Your task to perform on an android device: Search for Mexican restaurants on Maps Image 0: 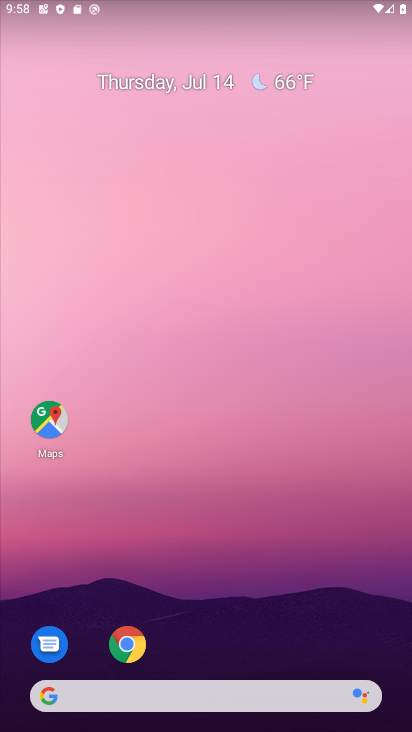
Step 0: drag from (310, 639) to (262, 296)
Your task to perform on an android device: Search for Mexican restaurants on Maps Image 1: 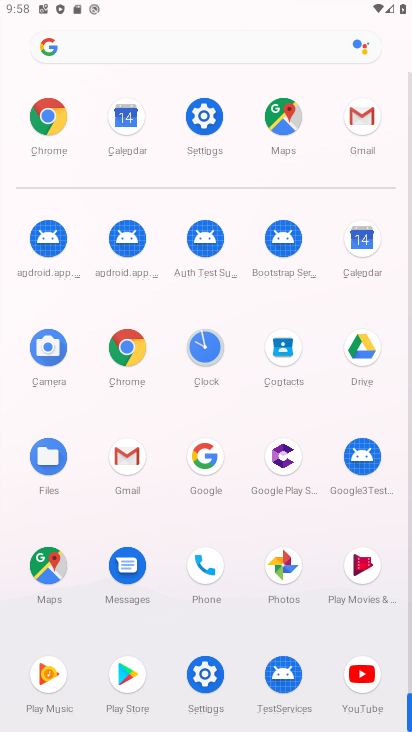
Step 1: click (42, 568)
Your task to perform on an android device: Search for Mexican restaurants on Maps Image 2: 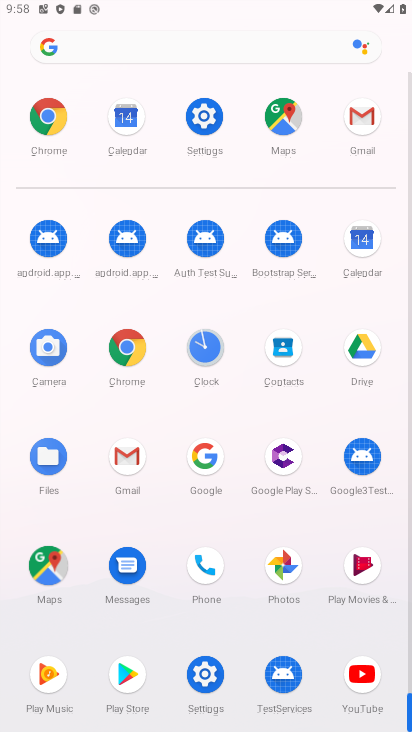
Step 2: click (44, 565)
Your task to perform on an android device: Search for Mexican restaurants on Maps Image 3: 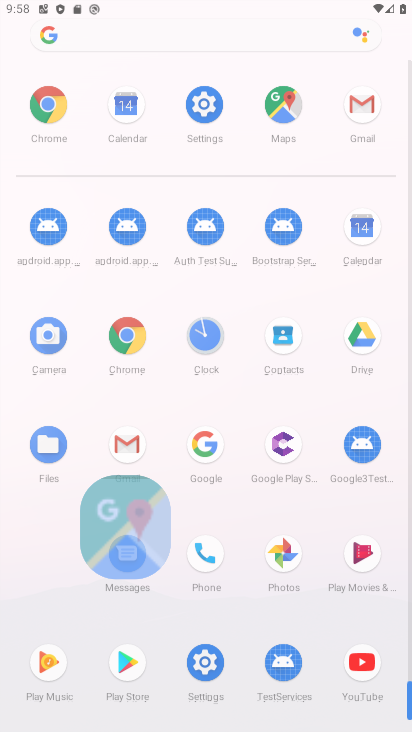
Step 3: click (46, 561)
Your task to perform on an android device: Search for Mexican restaurants on Maps Image 4: 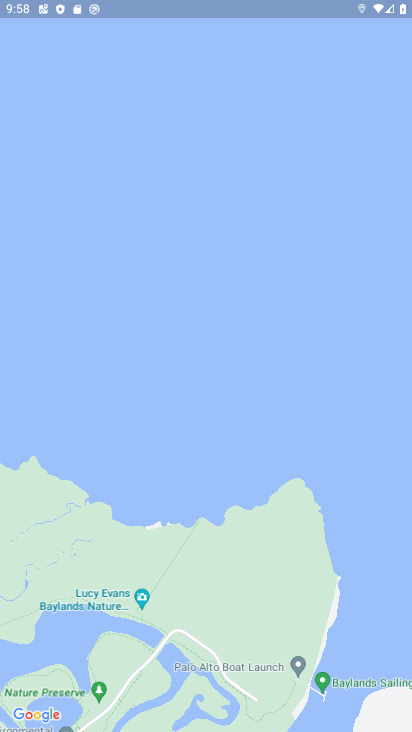
Step 4: click (89, 94)
Your task to perform on an android device: Search for Mexican restaurants on Maps Image 5: 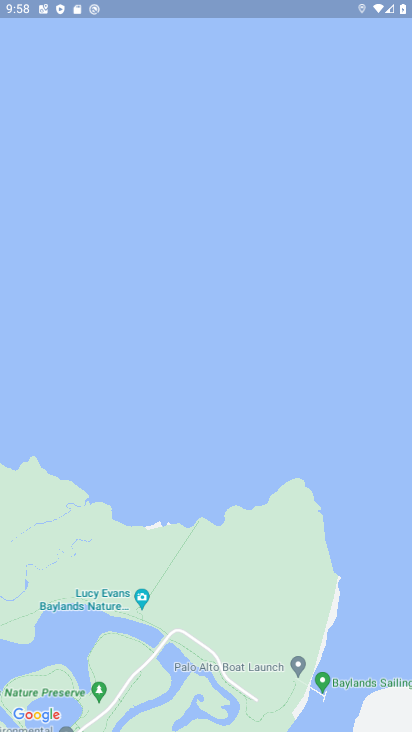
Step 5: click (130, 102)
Your task to perform on an android device: Search for Mexican restaurants on Maps Image 6: 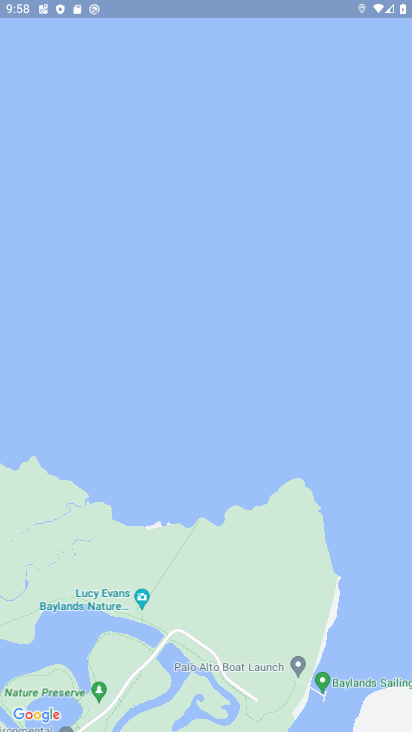
Step 6: click (130, 102)
Your task to perform on an android device: Search for Mexican restaurants on Maps Image 7: 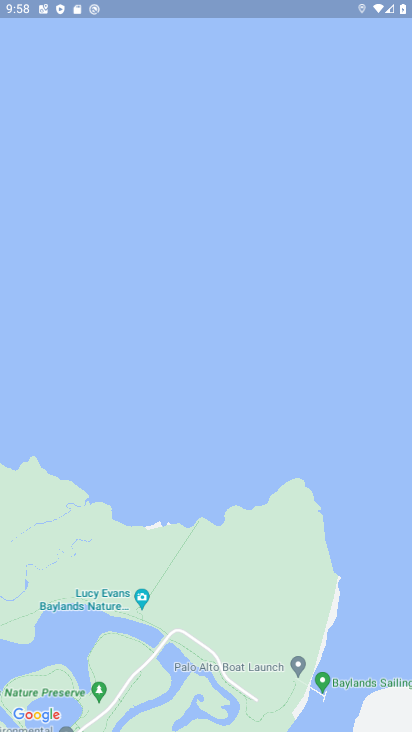
Step 7: click (131, 102)
Your task to perform on an android device: Search for Mexican restaurants on Maps Image 8: 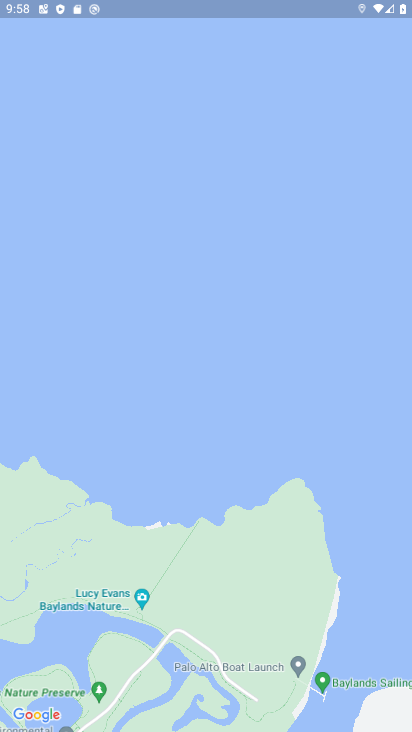
Step 8: click (139, 116)
Your task to perform on an android device: Search for Mexican restaurants on Maps Image 9: 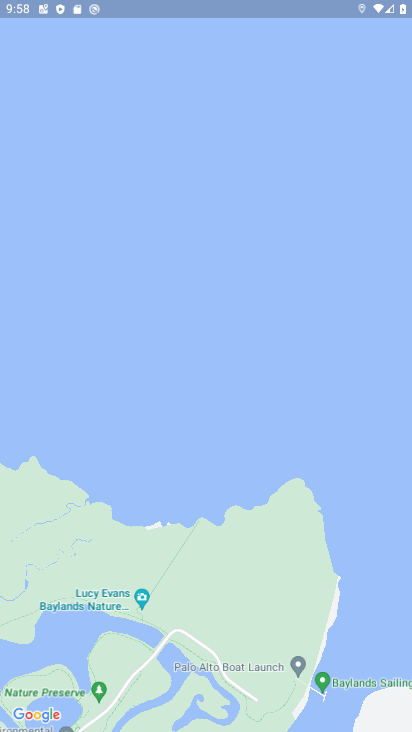
Step 9: click (134, 118)
Your task to perform on an android device: Search for Mexican restaurants on Maps Image 10: 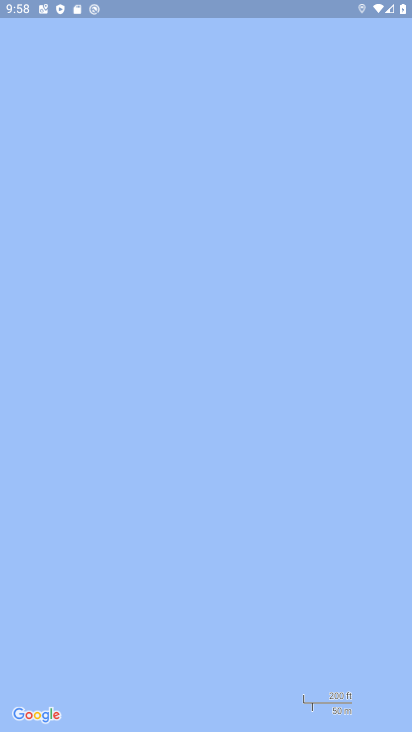
Step 10: click (114, 143)
Your task to perform on an android device: Search for Mexican restaurants on Maps Image 11: 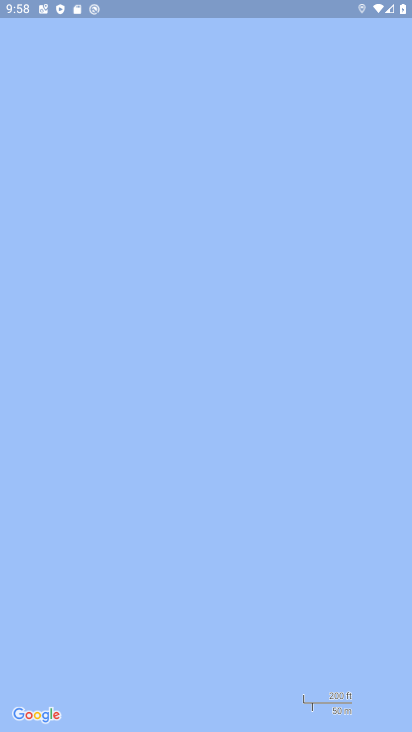
Step 11: click (114, 143)
Your task to perform on an android device: Search for Mexican restaurants on Maps Image 12: 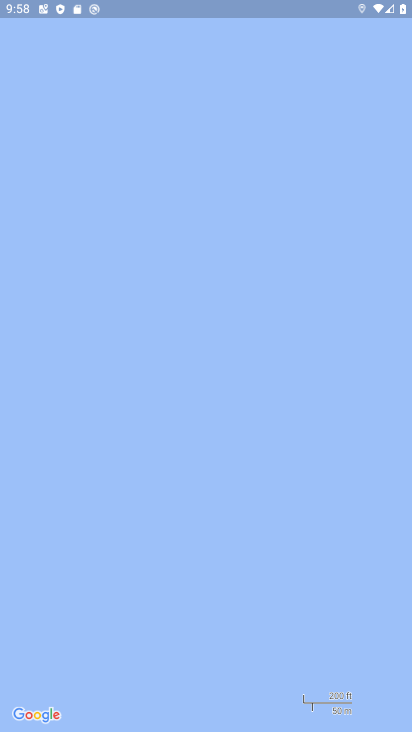
Step 12: click (114, 143)
Your task to perform on an android device: Search for Mexican restaurants on Maps Image 13: 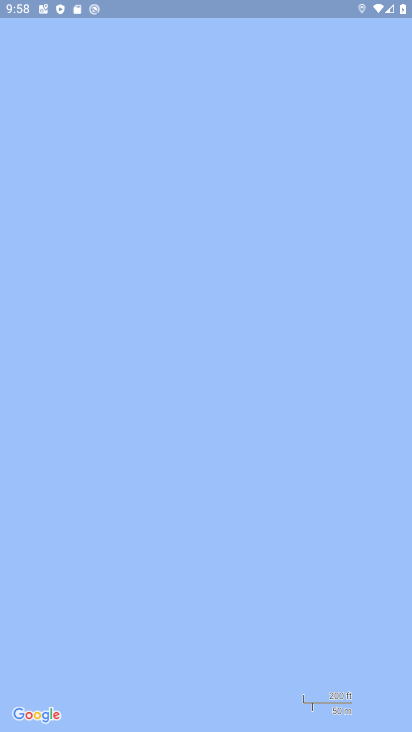
Step 13: click (114, 143)
Your task to perform on an android device: Search for Mexican restaurants on Maps Image 14: 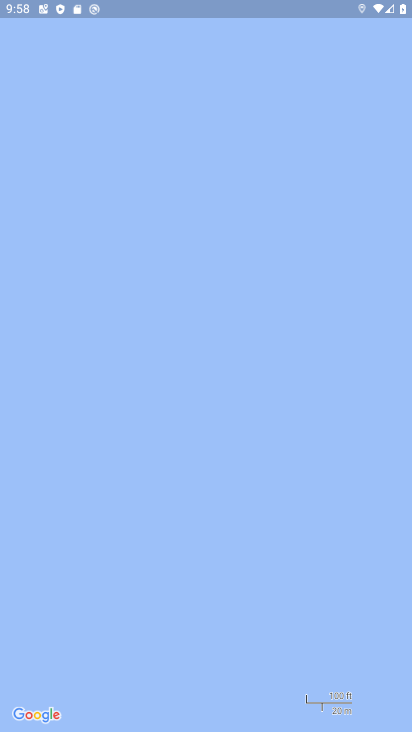
Step 14: click (121, 137)
Your task to perform on an android device: Search for Mexican restaurants on Maps Image 15: 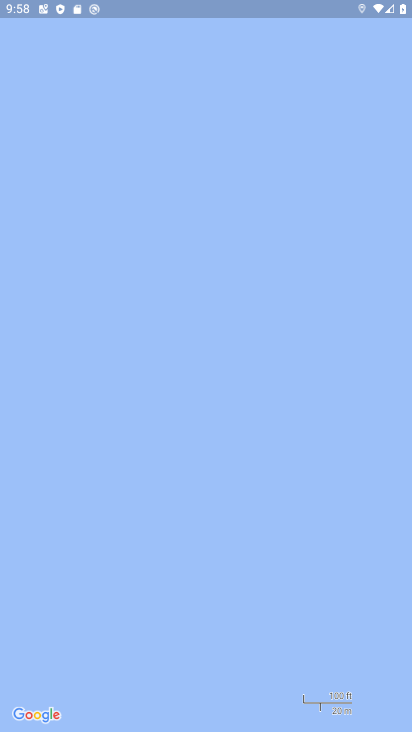
Step 15: click (121, 137)
Your task to perform on an android device: Search for Mexican restaurants on Maps Image 16: 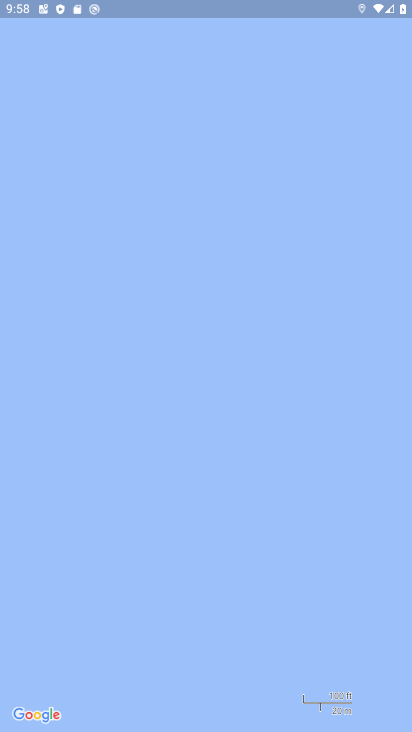
Step 16: click (133, 142)
Your task to perform on an android device: Search for Mexican restaurants on Maps Image 17: 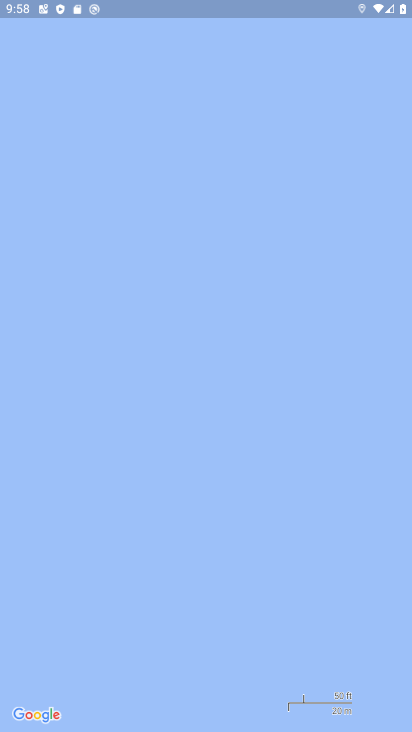
Step 17: click (133, 71)
Your task to perform on an android device: Search for Mexican restaurants on Maps Image 18: 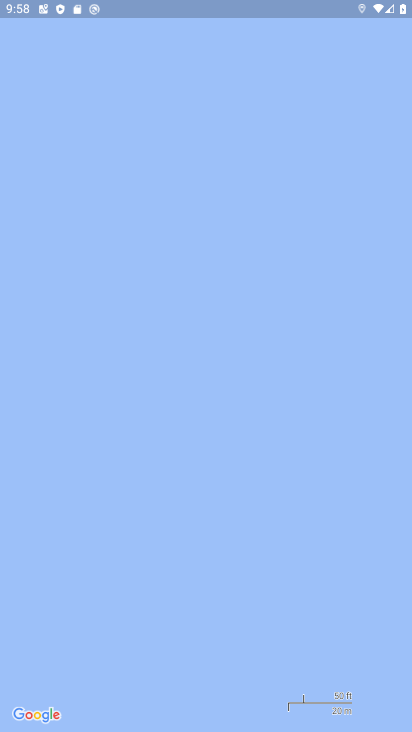
Step 18: click (133, 69)
Your task to perform on an android device: Search for Mexican restaurants on Maps Image 19: 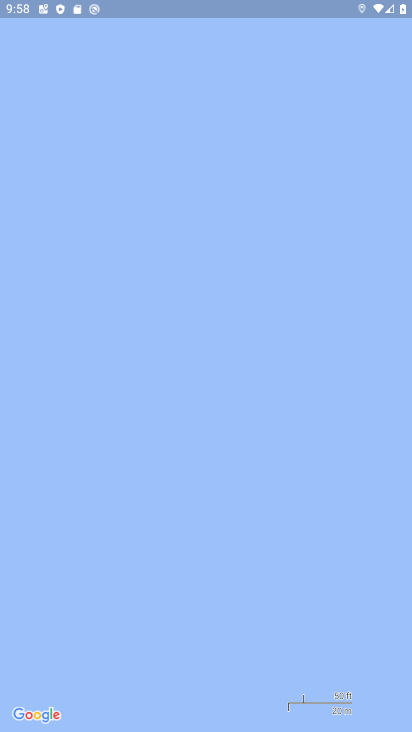
Step 19: click (112, 69)
Your task to perform on an android device: Search for Mexican restaurants on Maps Image 20: 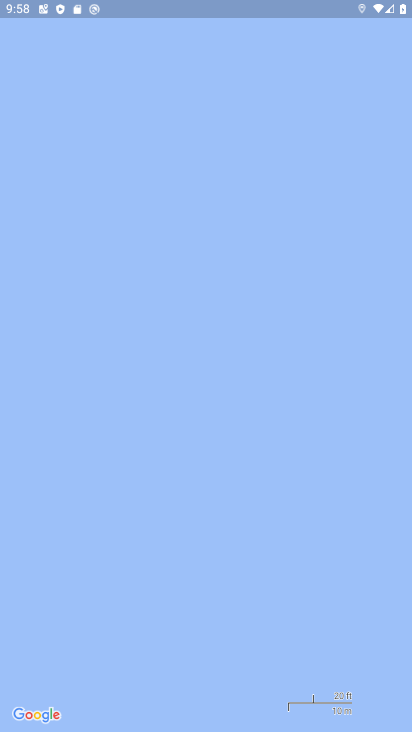
Step 20: click (83, 72)
Your task to perform on an android device: Search for Mexican restaurants on Maps Image 21: 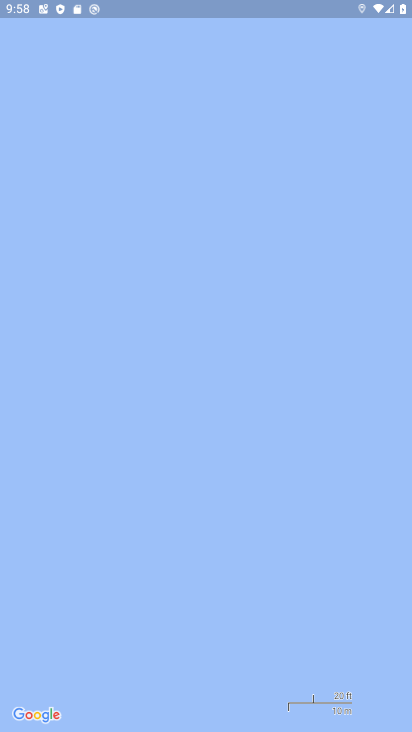
Step 21: click (82, 70)
Your task to perform on an android device: Search for Mexican restaurants on Maps Image 22: 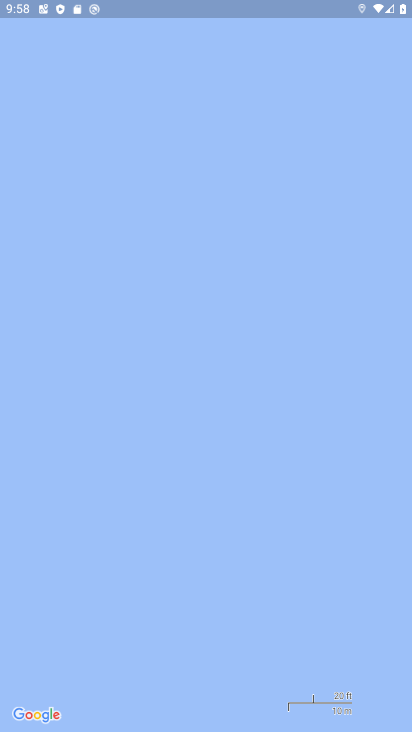
Step 22: click (86, 70)
Your task to perform on an android device: Search for Mexican restaurants on Maps Image 23: 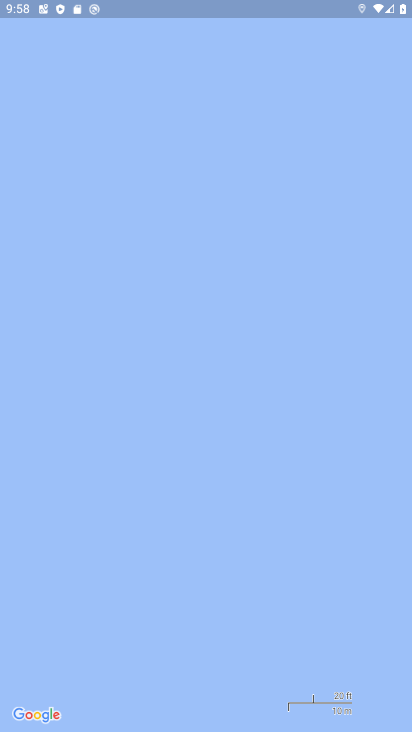
Step 23: task complete